Your task to perform on an android device: What's the weather? Image 0: 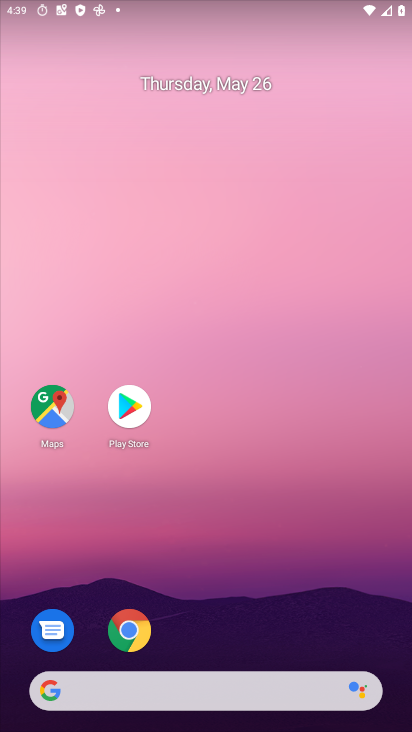
Step 0: click (183, 680)
Your task to perform on an android device: What's the weather? Image 1: 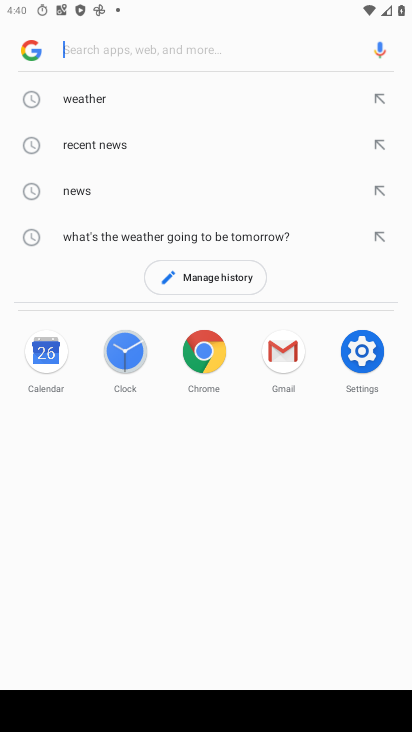
Step 1: click (84, 106)
Your task to perform on an android device: What's the weather? Image 2: 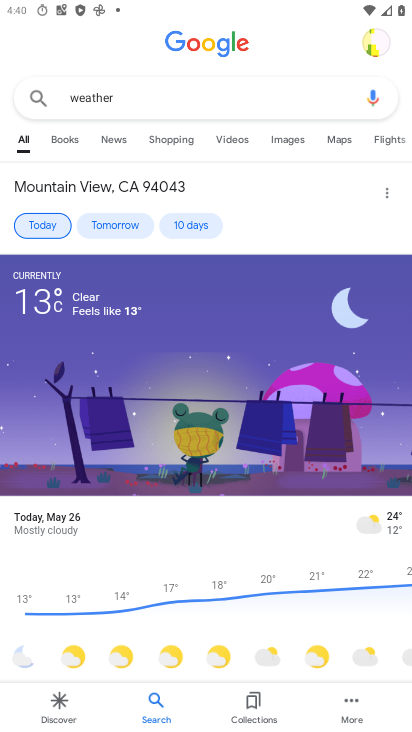
Step 2: task complete